Your task to perform on an android device: open device folders in google photos Image 0: 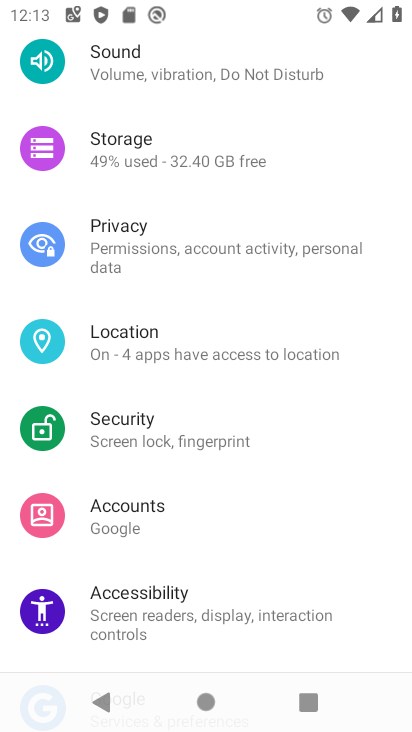
Step 0: press home button
Your task to perform on an android device: open device folders in google photos Image 1: 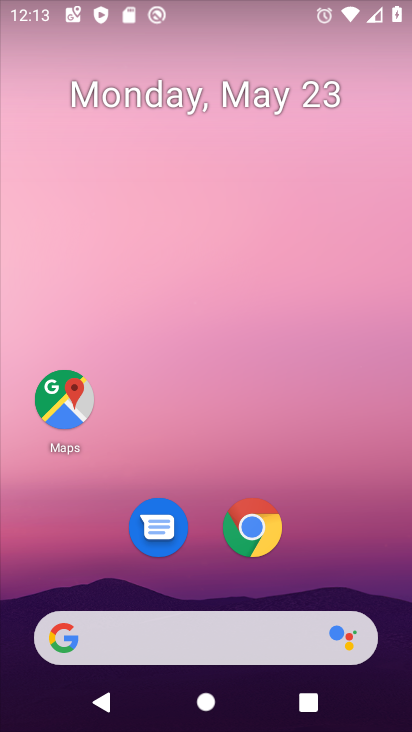
Step 1: drag from (344, 582) to (242, 191)
Your task to perform on an android device: open device folders in google photos Image 2: 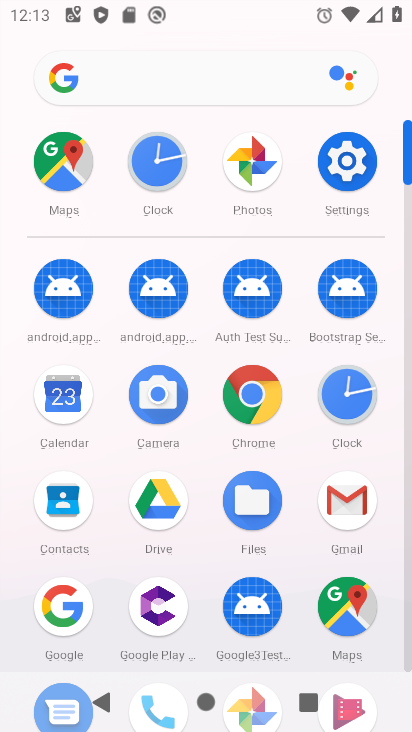
Step 2: click (260, 171)
Your task to perform on an android device: open device folders in google photos Image 3: 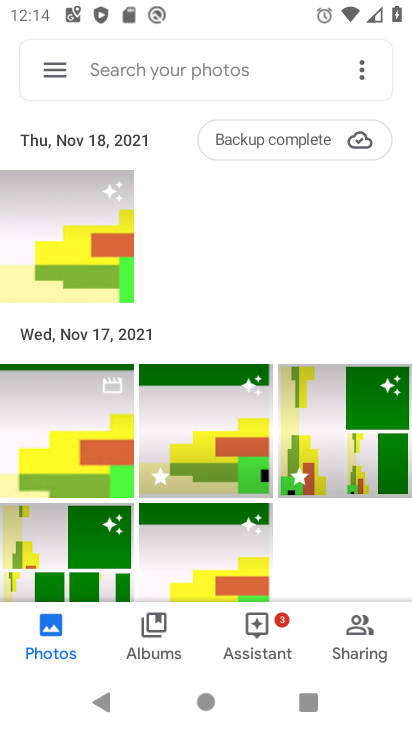
Step 3: press home button
Your task to perform on an android device: open device folders in google photos Image 4: 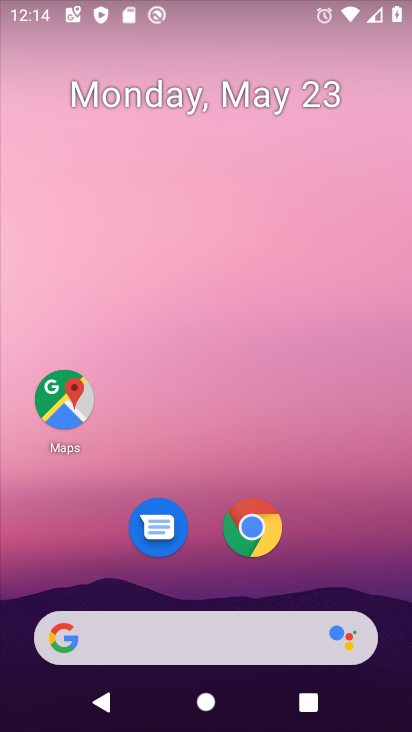
Step 4: drag from (363, 518) to (323, 133)
Your task to perform on an android device: open device folders in google photos Image 5: 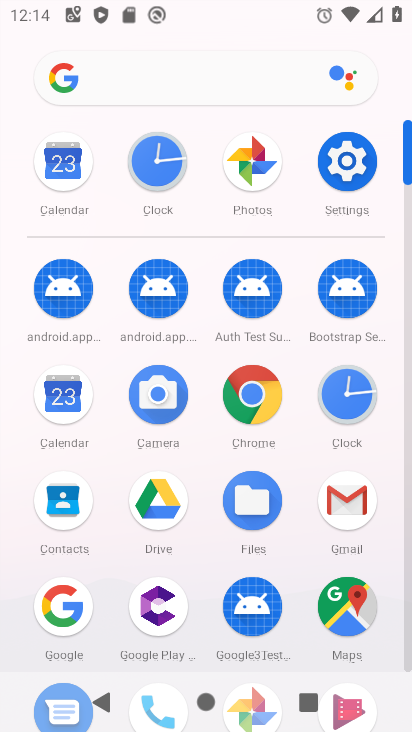
Step 5: click (262, 181)
Your task to perform on an android device: open device folders in google photos Image 6: 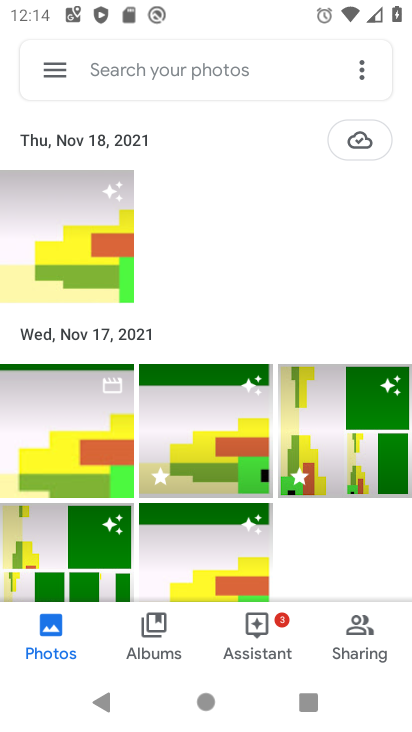
Step 6: click (52, 64)
Your task to perform on an android device: open device folders in google photos Image 7: 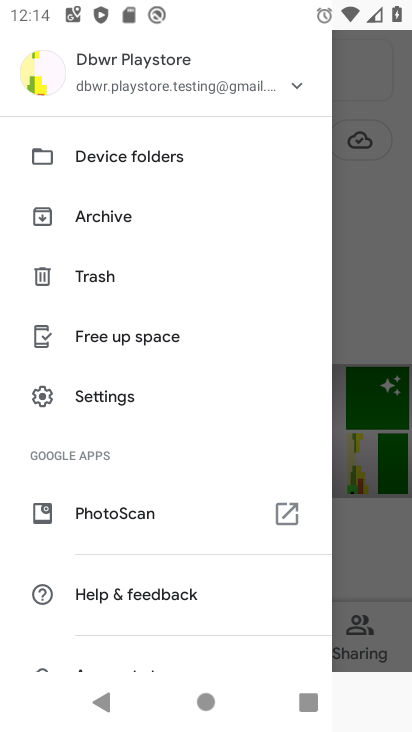
Step 7: click (88, 143)
Your task to perform on an android device: open device folders in google photos Image 8: 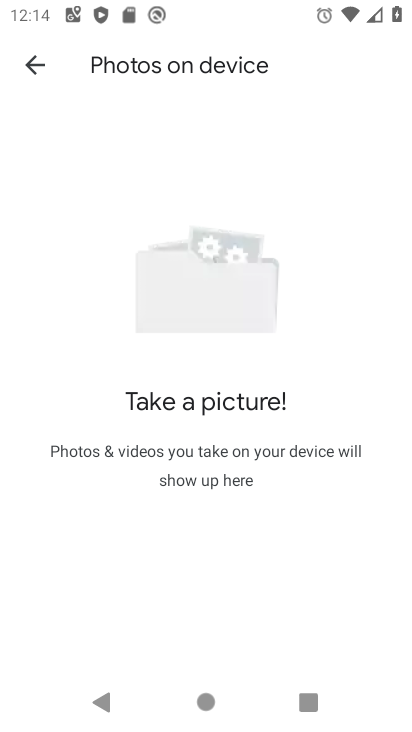
Step 8: task complete